Your task to perform on an android device: change the clock style Image 0: 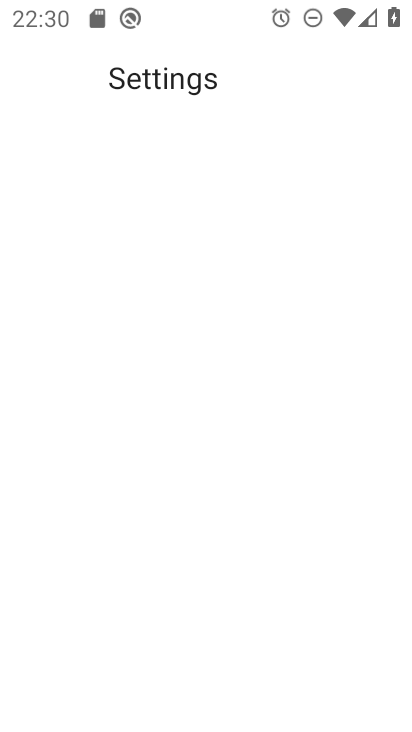
Step 0: drag from (246, 413) to (248, 157)
Your task to perform on an android device: change the clock style Image 1: 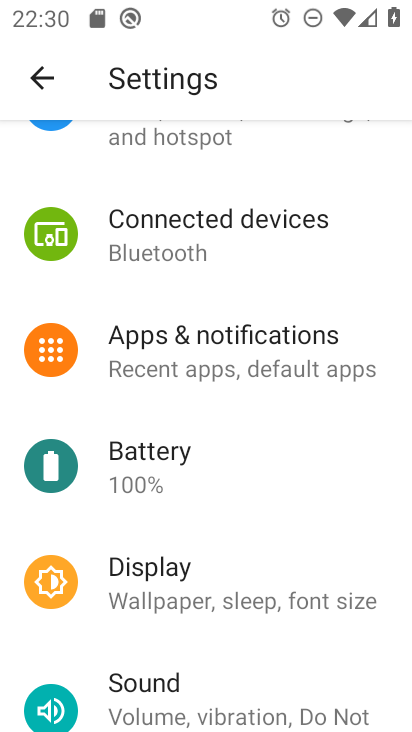
Step 1: press home button
Your task to perform on an android device: change the clock style Image 2: 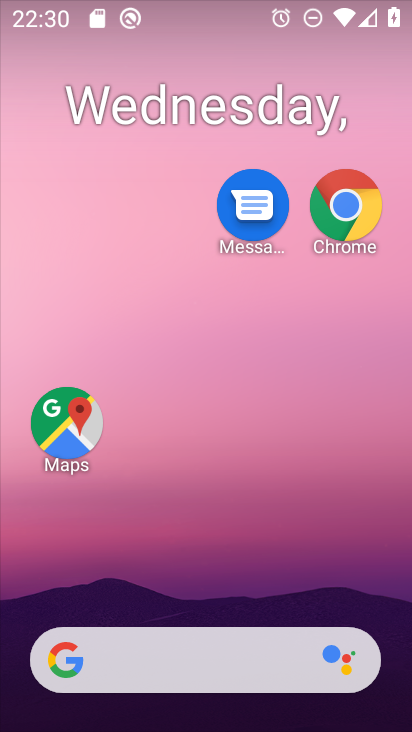
Step 2: drag from (189, 559) to (278, 76)
Your task to perform on an android device: change the clock style Image 3: 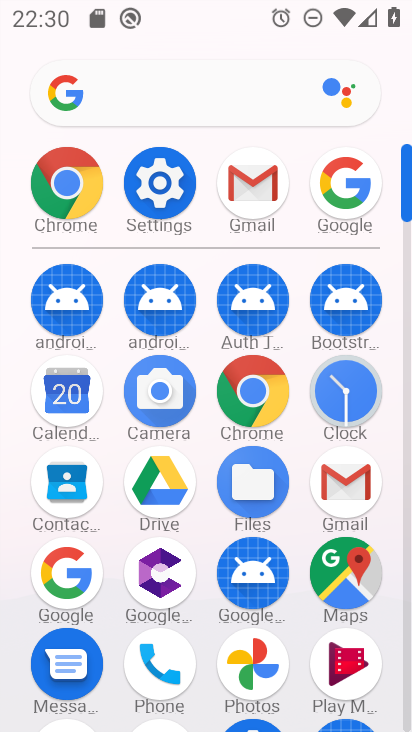
Step 3: click (151, 195)
Your task to perform on an android device: change the clock style Image 4: 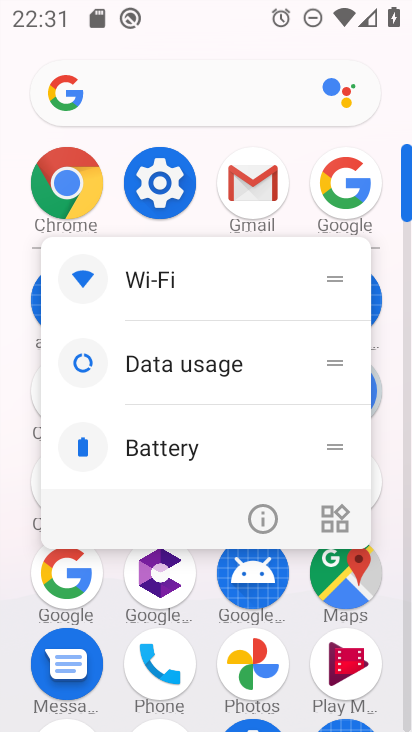
Step 4: drag from (382, 316) to (401, 666)
Your task to perform on an android device: change the clock style Image 5: 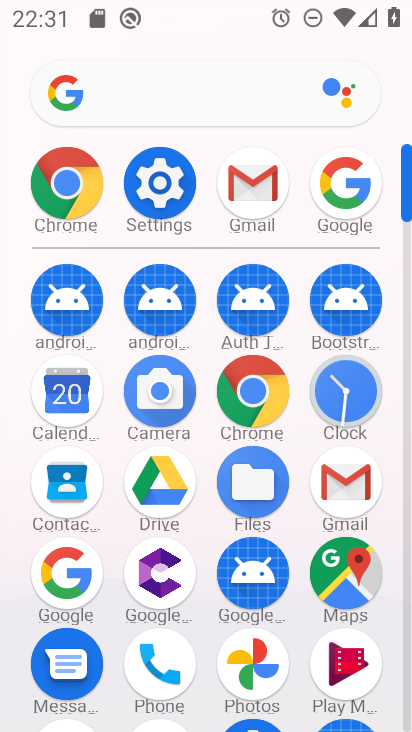
Step 5: click (343, 413)
Your task to perform on an android device: change the clock style Image 6: 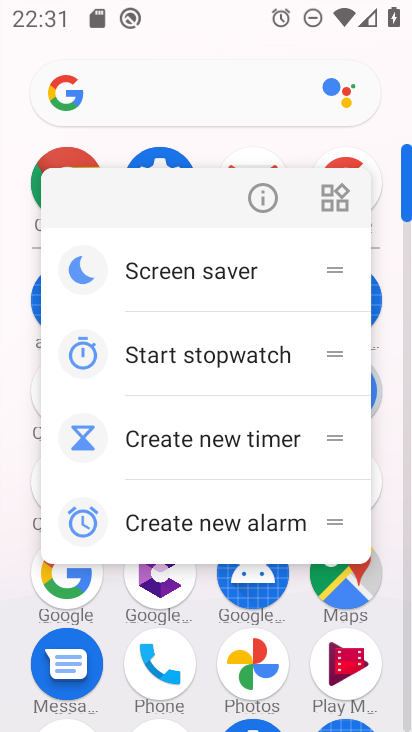
Step 6: click (269, 198)
Your task to perform on an android device: change the clock style Image 7: 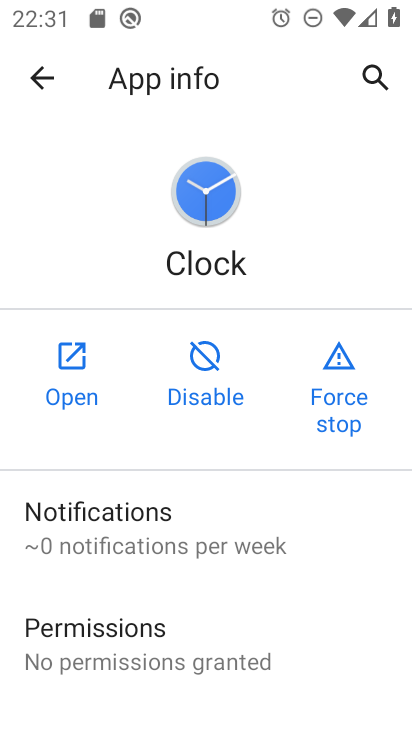
Step 7: click (58, 360)
Your task to perform on an android device: change the clock style Image 8: 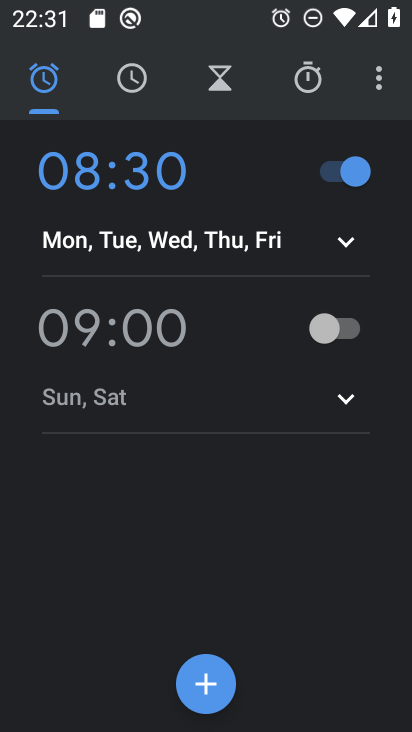
Step 8: click (381, 76)
Your task to perform on an android device: change the clock style Image 9: 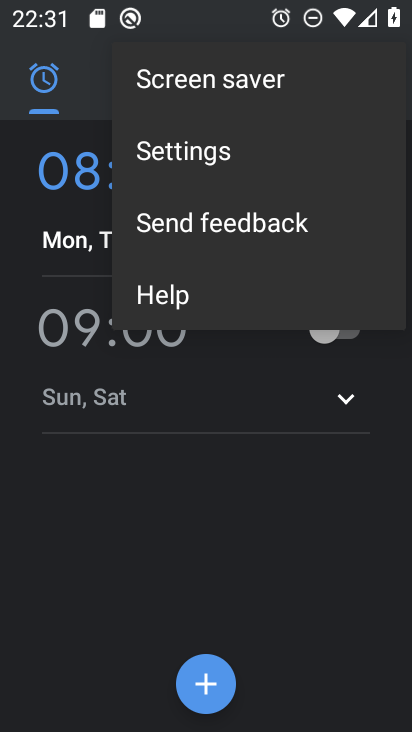
Step 9: click (214, 152)
Your task to perform on an android device: change the clock style Image 10: 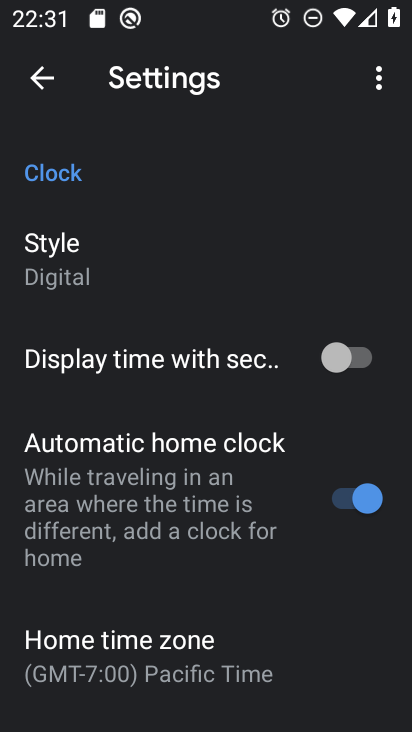
Step 10: click (84, 271)
Your task to perform on an android device: change the clock style Image 11: 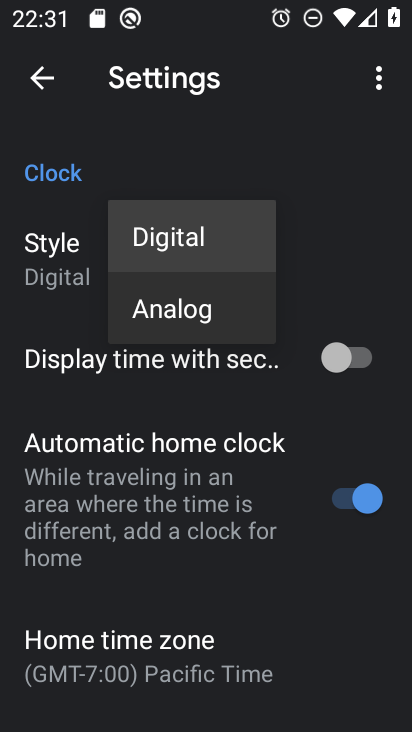
Step 11: click (181, 301)
Your task to perform on an android device: change the clock style Image 12: 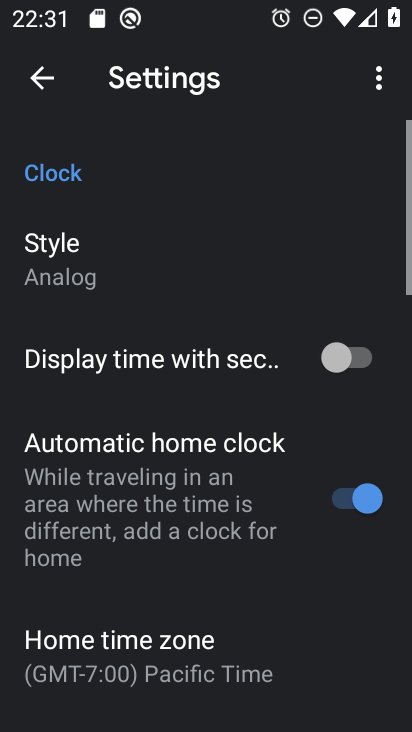
Step 12: task complete